Your task to perform on an android device: Clear all items from cart on target.com. Search for razer blade on target.com, select the first entry, add it to the cart, then select checkout. Image 0: 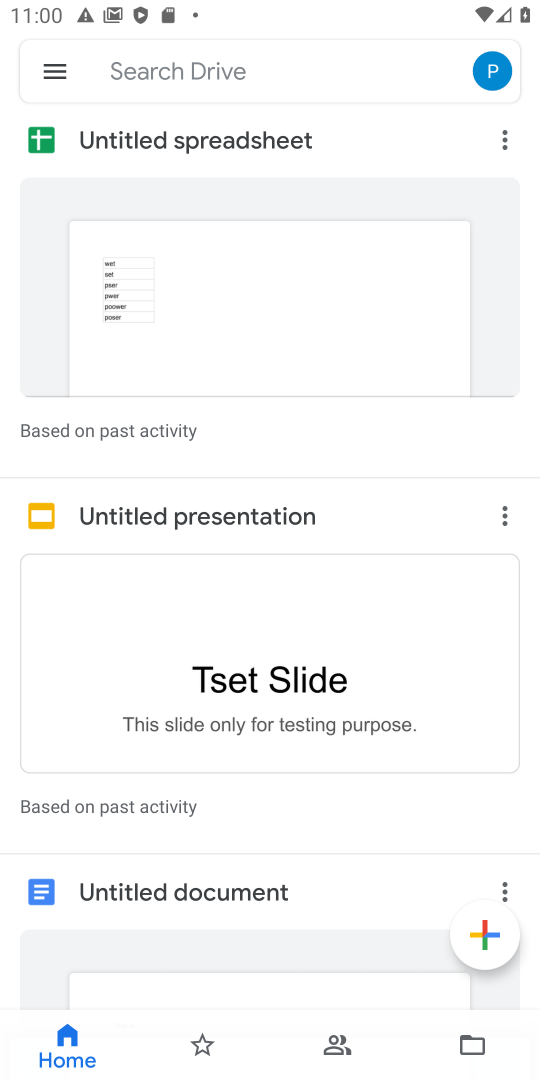
Step 0: task complete